Your task to perform on an android device: Go to ESPN.com Image 0: 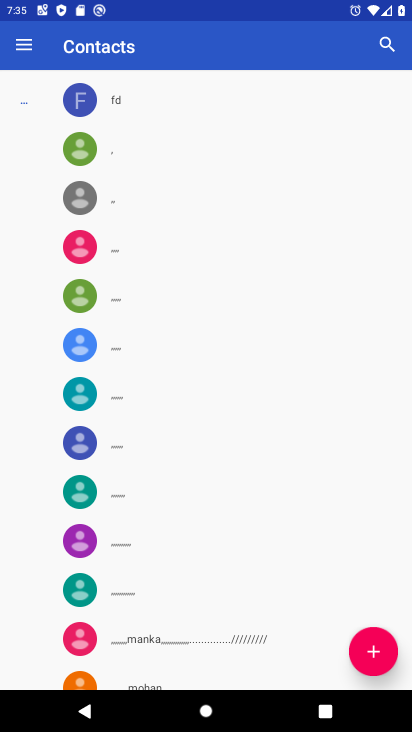
Step 0: press home button
Your task to perform on an android device: Go to ESPN.com Image 1: 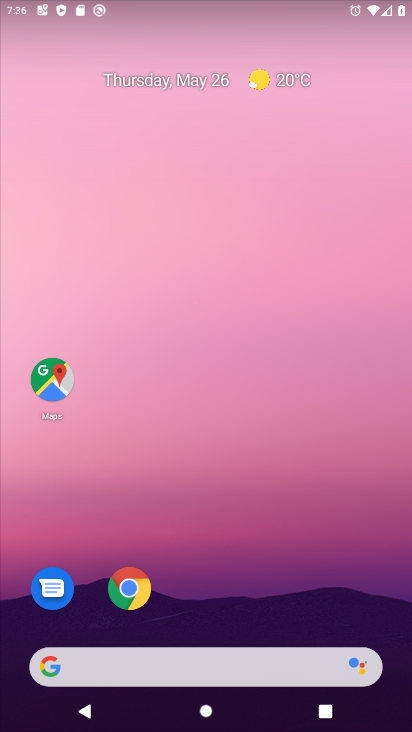
Step 1: drag from (358, 608) to (257, 0)
Your task to perform on an android device: Go to ESPN.com Image 2: 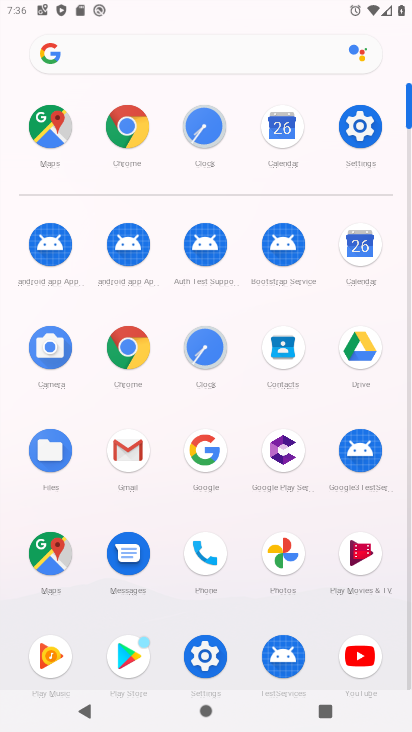
Step 2: click (201, 450)
Your task to perform on an android device: Go to ESPN.com Image 3: 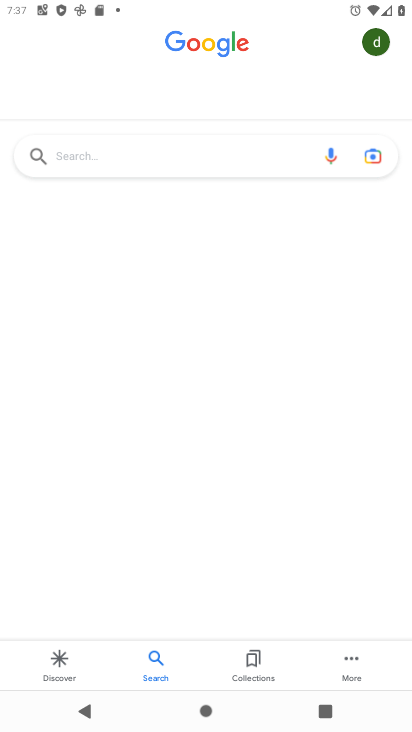
Step 3: click (196, 145)
Your task to perform on an android device: Go to ESPN.com Image 4: 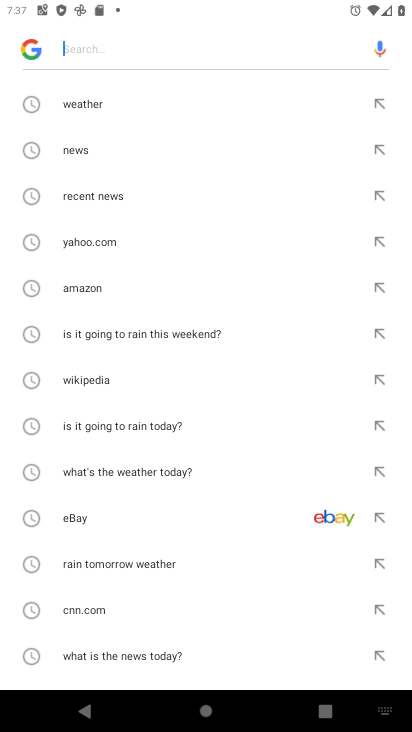
Step 4: drag from (93, 623) to (142, 236)
Your task to perform on an android device: Go to ESPN.com Image 5: 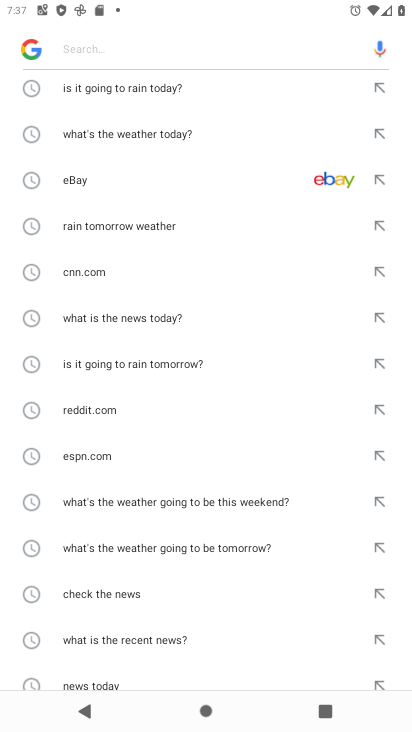
Step 5: click (98, 460)
Your task to perform on an android device: Go to ESPN.com Image 6: 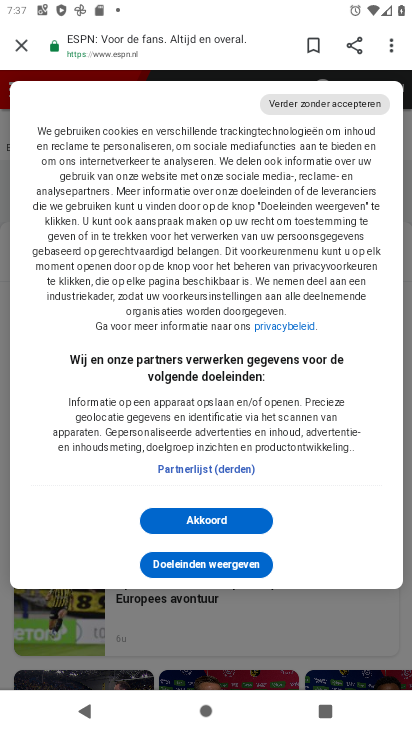
Step 6: task complete